Your task to perform on an android device: Go to Amazon Image 0: 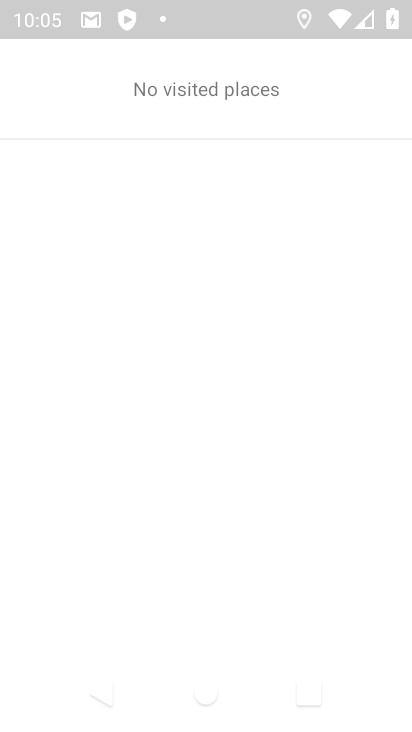
Step 0: drag from (297, 612) to (258, 256)
Your task to perform on an android device: Go to Amazon Image 1: 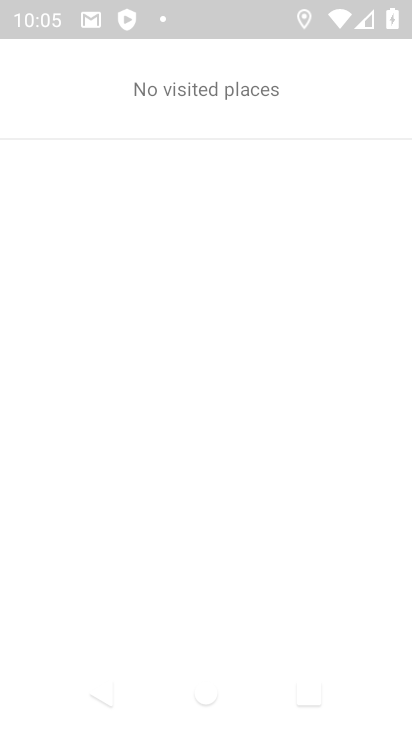
Step 1: drag from (167, 316) to (387, 730)
Your task to perform on an android device: Go to Amazon Image 2: 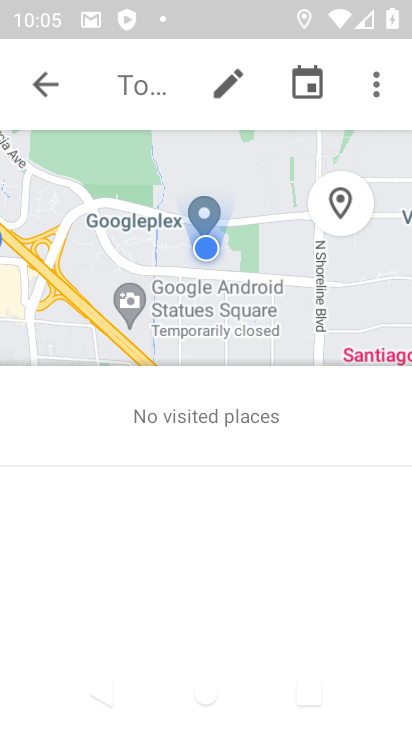
Step 2: drag from (175, 250) to (311, 571)
Your task to perform on an android device: Go to Amazon Image 3: 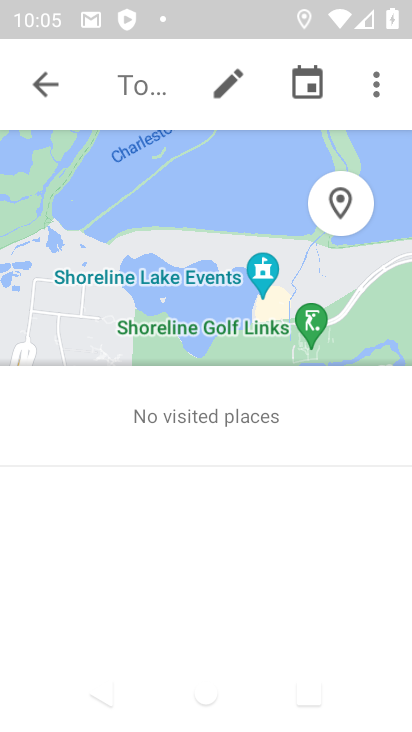
Step 3: press home button
Your task to perform on an android device: Go to Amazon Image 4: 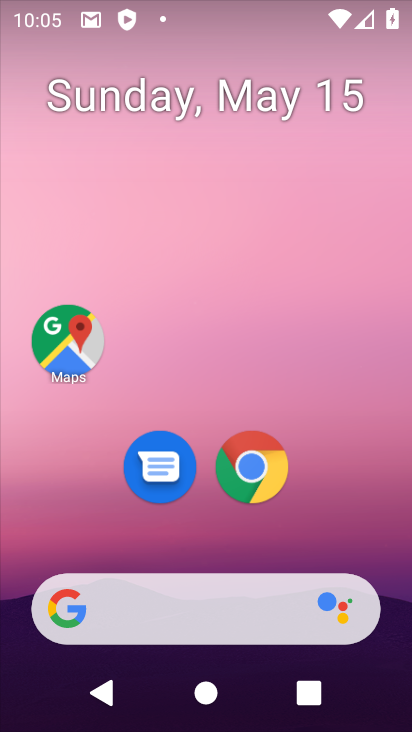
Step 4: drag from (228, 556) to (227, 265)
Your task to perform on an android device: Go to Amazon Image 5: 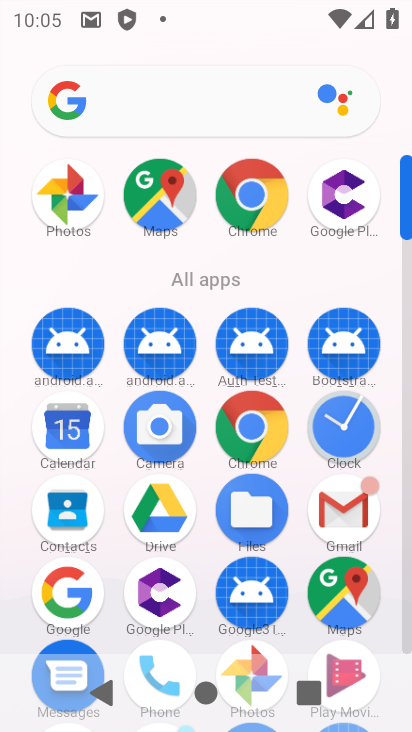
Step 5: click (246, 196)
Your task to perform on an android device: Go to Amazon Image 6: 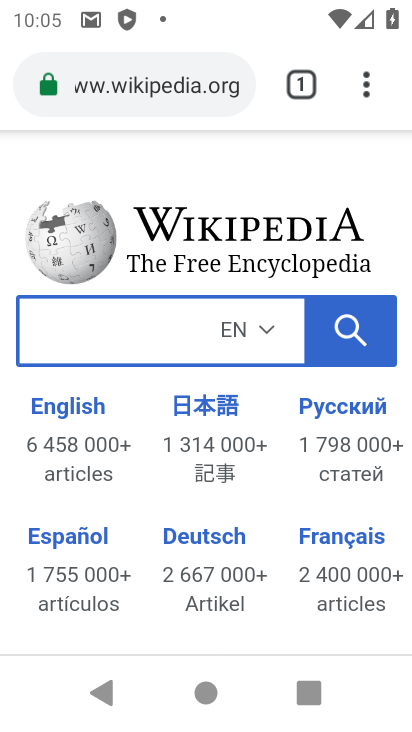
Step 6: click (300, 87)
Your task to perform on an android device: Go to Amazon Image 7: 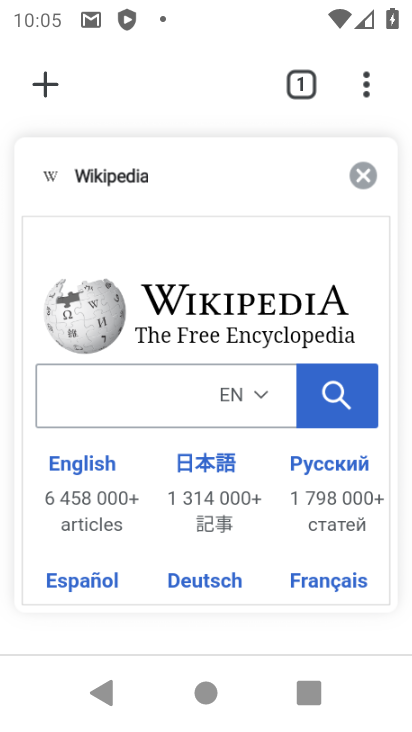
Step 7: click (368, 186)
Your task to perform on an android device: Go to Amazon Image 8: 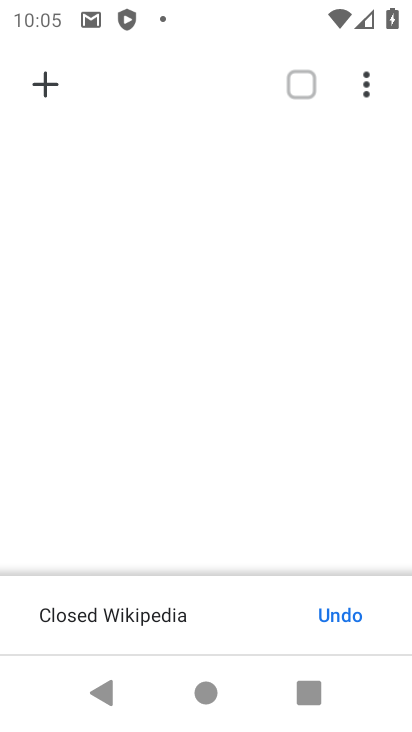
Step 8: click (45, 101)
Your task to perform on an android device: Go to Amazon Image 9: 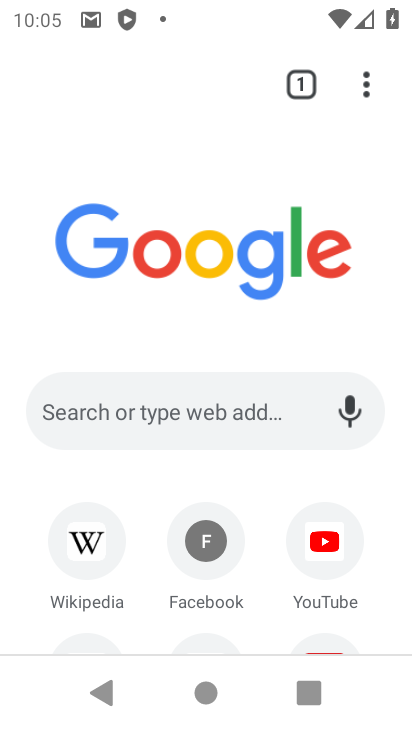
Step 9: drag from (271, 612) to (259, 220)
Your task to perform on an android device: Go to Amazon Image 10: 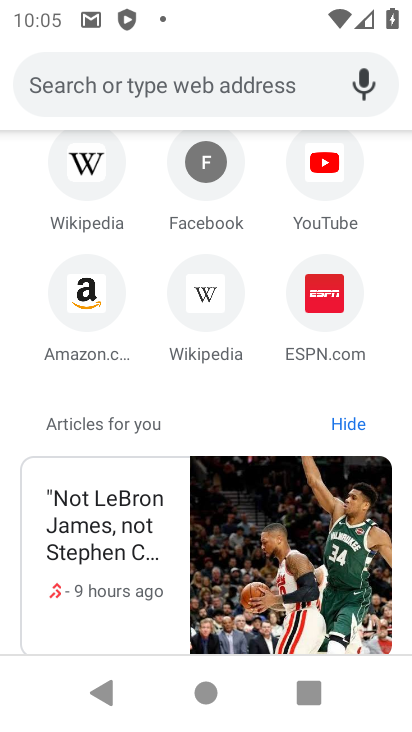
Step 10: click (74, 297)
Your task to perform on an android device: Go to Amazon Image 11: 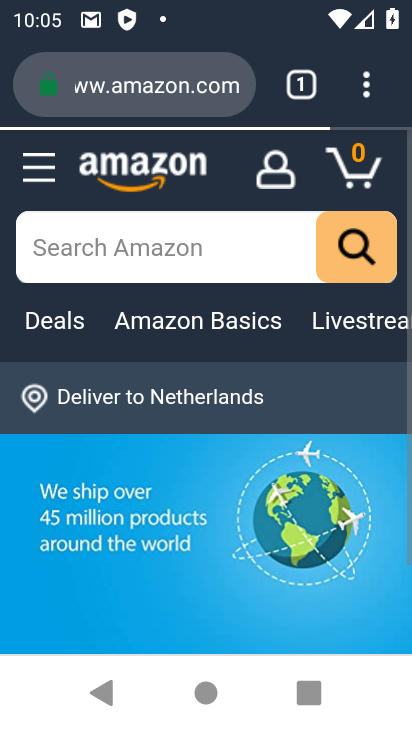
Step 11: task complete